Your task to perform on an android device: Show me the alarms in the clock app Image 0: 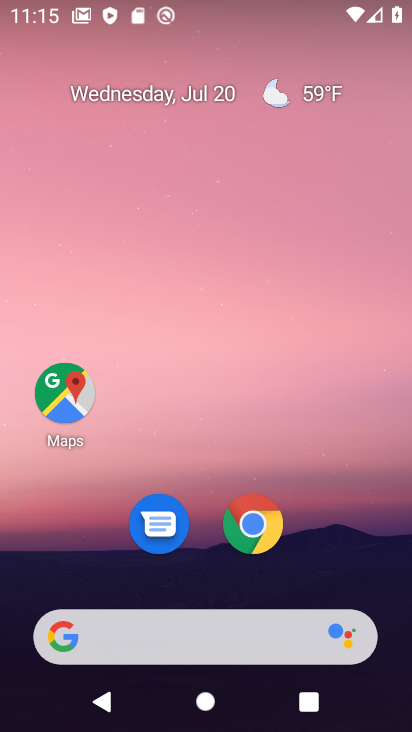
Step 0: drag from (197, 649) to (224, 105)
Your task to perform on an android device: Show me the alarms in the clock app Image 1: 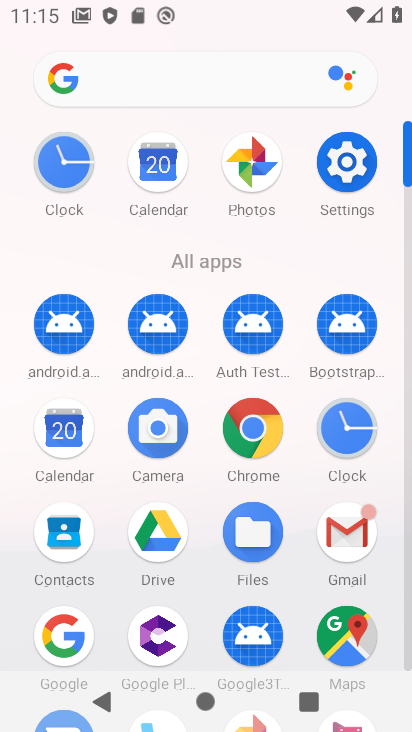
Step 1: click (340, 421)
Your task to perform on an android device: Show me the alarms in the clock app Image 2: 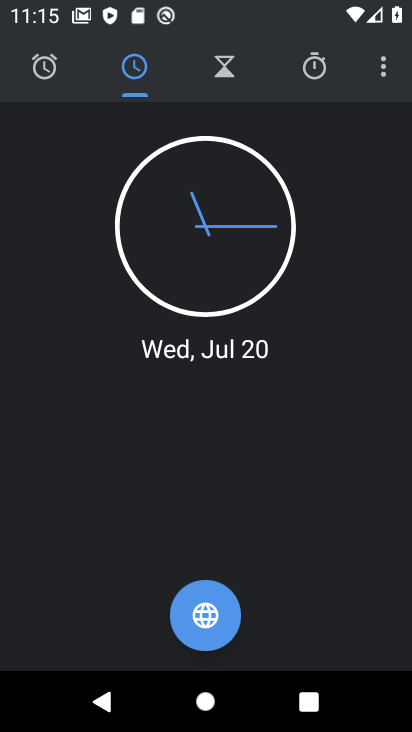
Step 2: click (36, 68)
Your task to perform on an android device: Show me the alarms in the clock app Image 3: 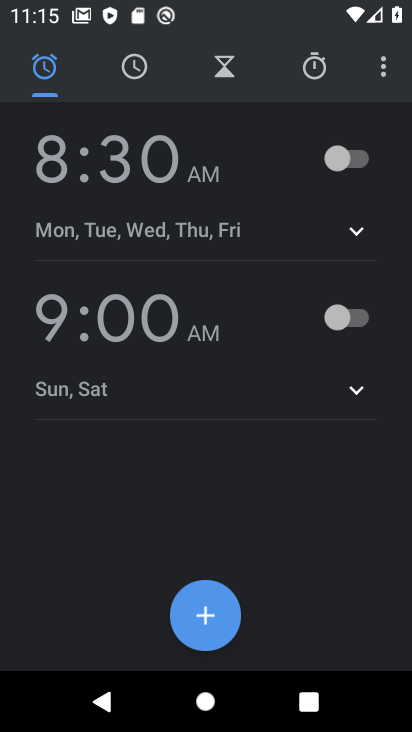
Step 3: task complete